Your task to perform on an android device: Search for the best rated drill on Lowes.com Image 0: 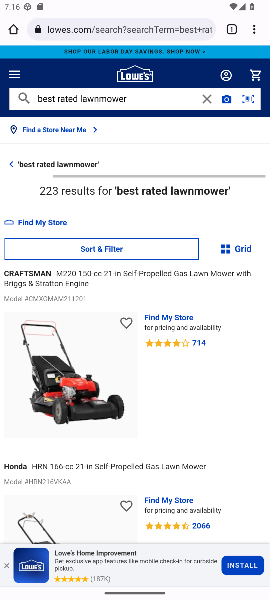
Step 0: click (206, 99)
Your task to perform on an android device: Search for the best rated drill on Lowes.com Image 1: 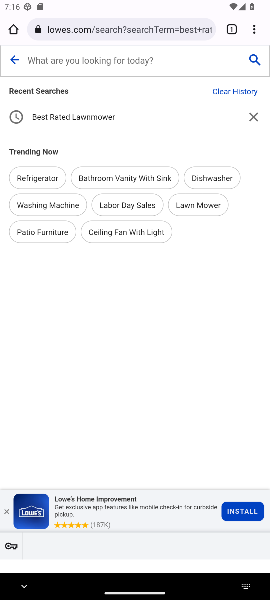
Step 1: click (106, 63)
Your task to perform on an android device: Search for the best rated drill on Lowes.com Image 2: 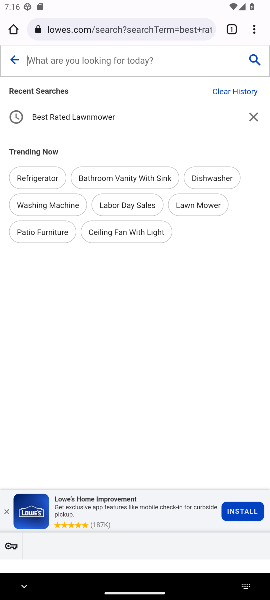
Step 2: type "best rated drill "
Your task to perform on an android device: Search for the best rated drill on Lowes.com Image 3: 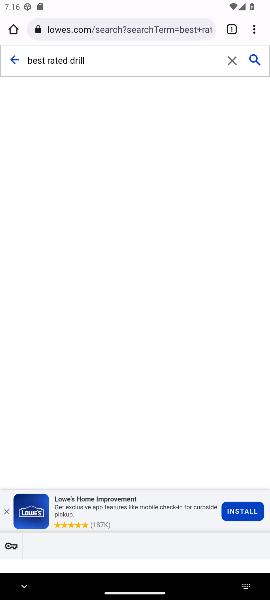
Step 3: click (251, 61)
Your task to perform on an android device: Search for the best rated drill on Lowes.com Image 4: 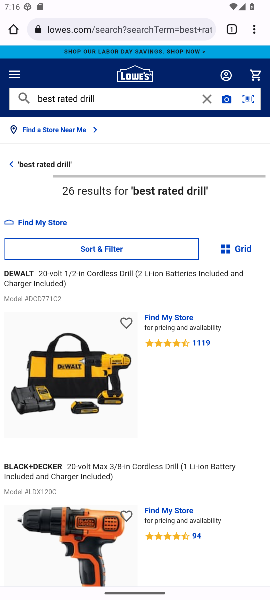
Step 4: task complete